Your task to perform on an android device: Open the Play Movies app and select the watchlist tab. Image 0: 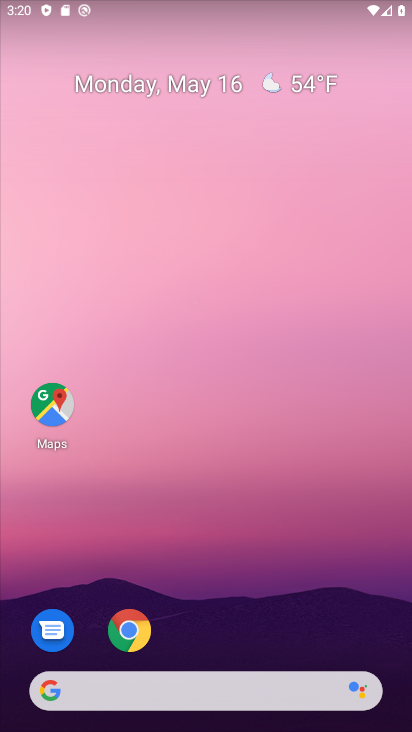
Step 0: drag from (290, 657) to (243, 9)
Your task to perform on an android device: Open the Play Movies app and select the watchlist tab. Image 1: 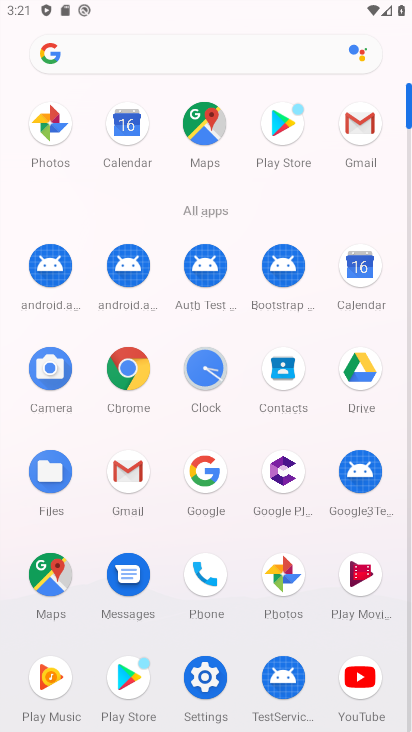
Step 1: click (363, 598)
Your task to perform on an android device: Open the Play Movies app and select the watchlist tab. Image 2: 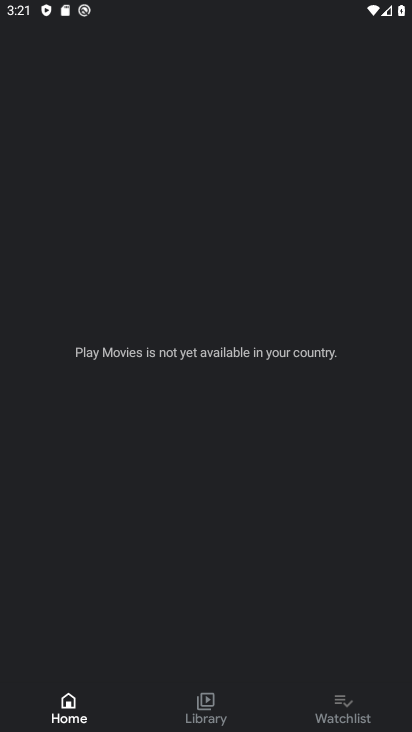
Step 2: click (356, 704)
Your task to perform on an android device: Open the Play Movies app and select the watchlist tab. Image 3: 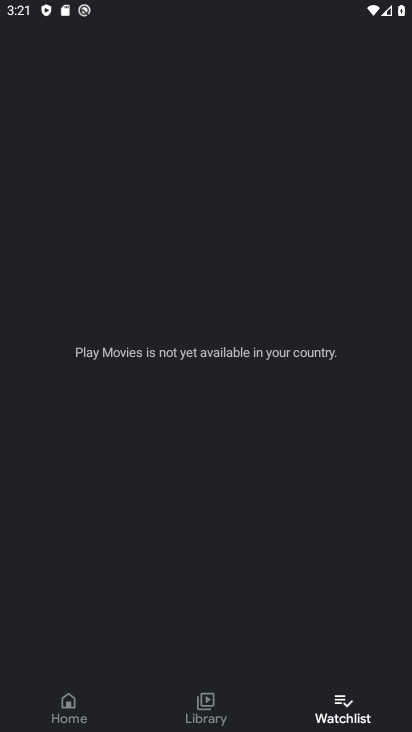
Step 3: task complete